Your task to perform on an android device: Go to battery settings Image 0: 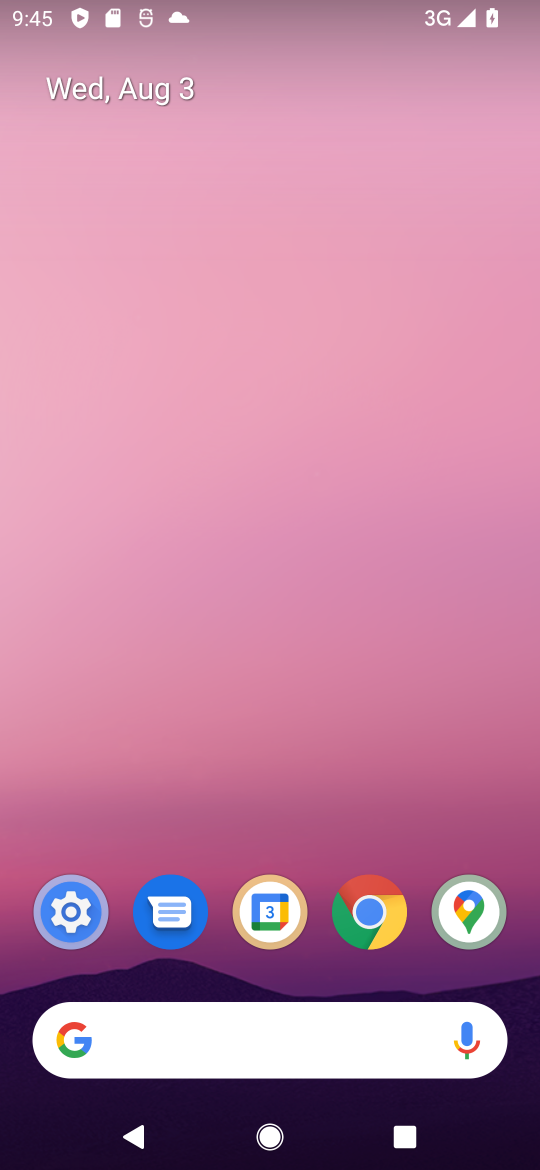
Step 0: drag from (326, 791) to (106, 82)
Your task to perform on an android device: Go to battery settings Image 1: 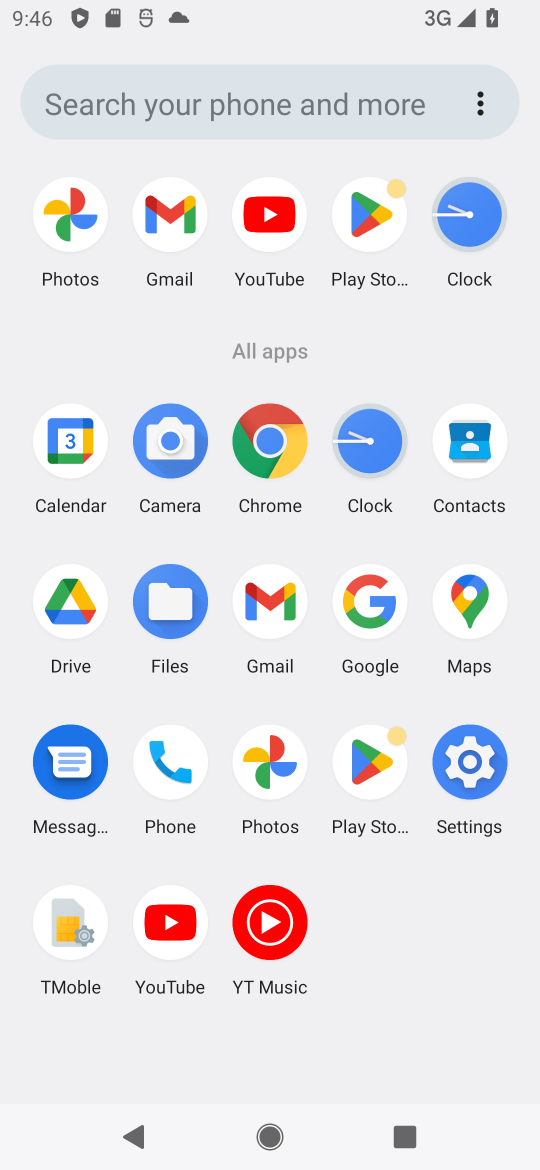
Step 1: click (425, 754)
Your task to perform on an android device: Go to battery settings Image 2: 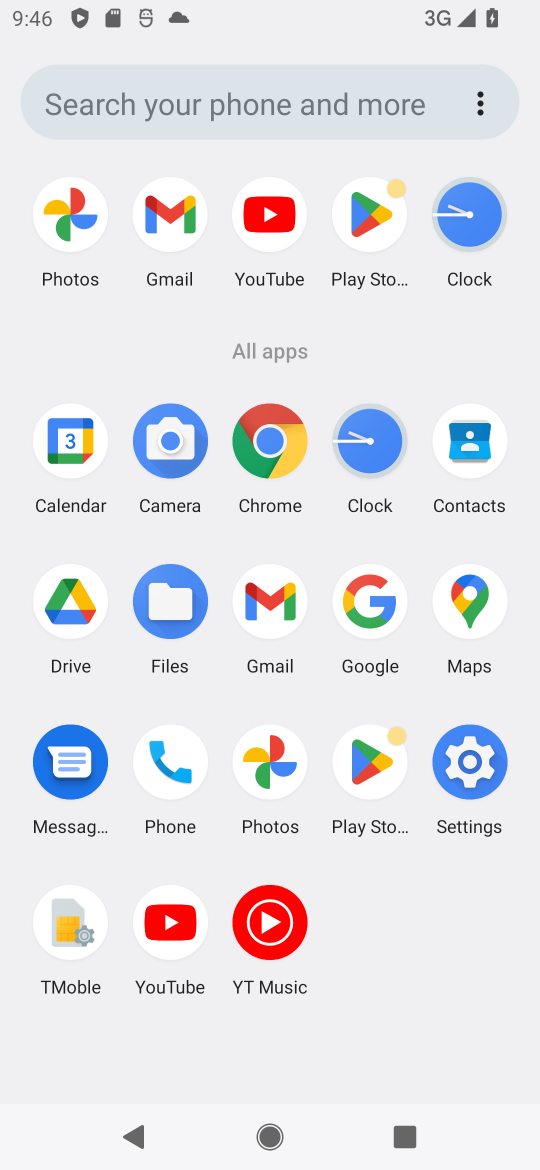
Step 2: click (464, 761)
Your task to perform on an android device: Go to battery settings Image 3: 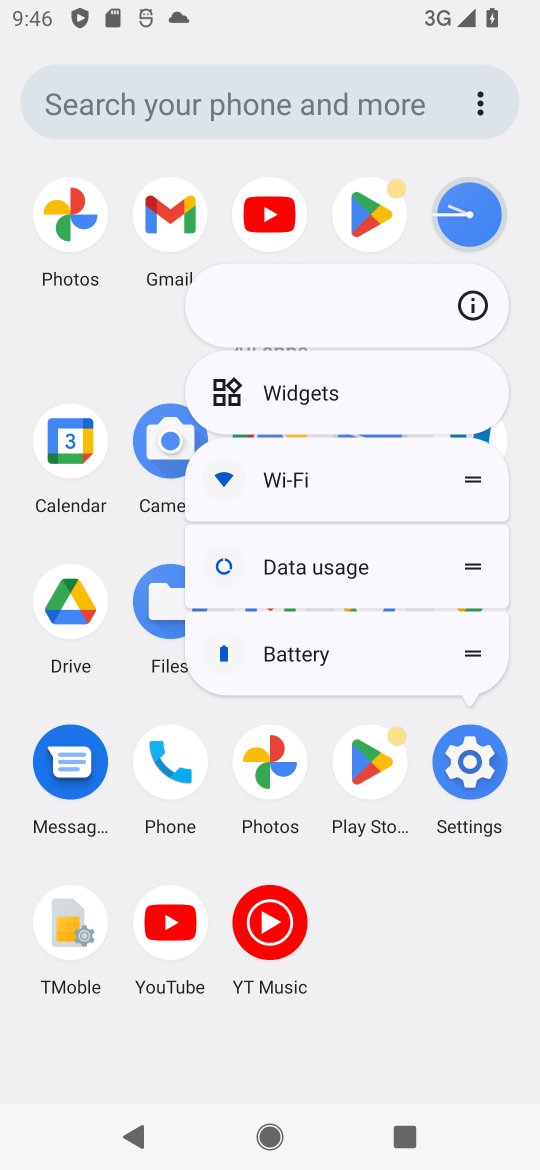
Step 3: click (467, 746)
Your task to perform on an android device: Go to battery settings Image 4: 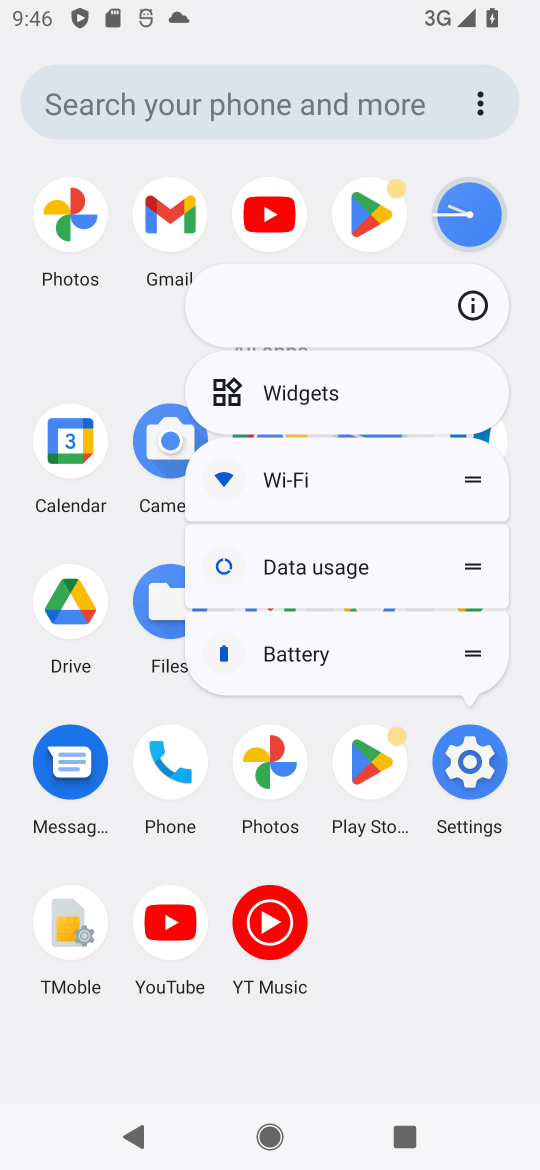
Step 4: click (483, 759)
Your task to perform on an android device: Go to battery settings Image 5: 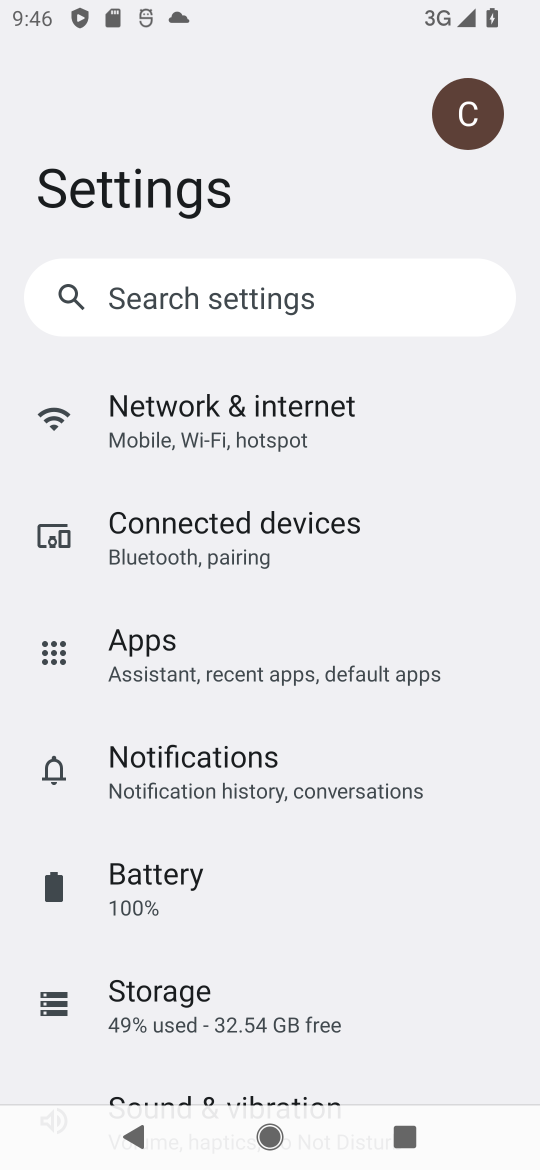
Step 5: click (142, 886)
Your task to perform on an android device: Go to battery settings Image 6: 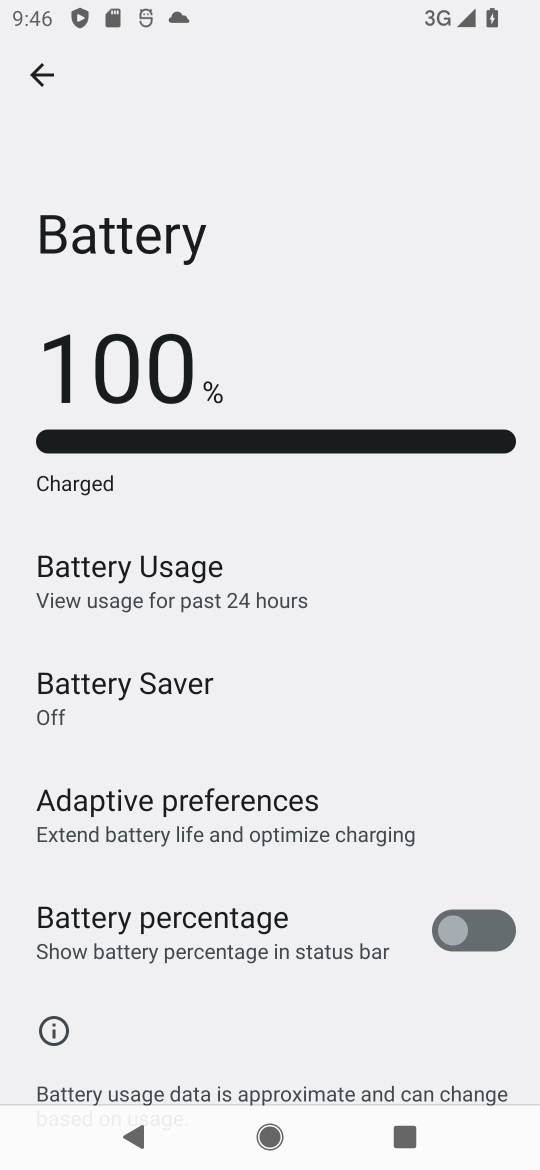
Step 6: task complete